Your task to perform on an android device: Go to calendar. Show me events next week Image 0: 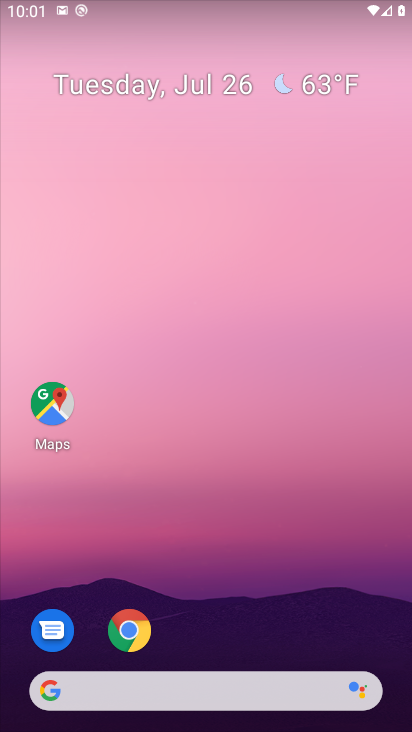
Step 0: drag from (205, 640) to (270, 15)
Your task to perform on an android device: Go to calendar. Show me events next week Image 1: 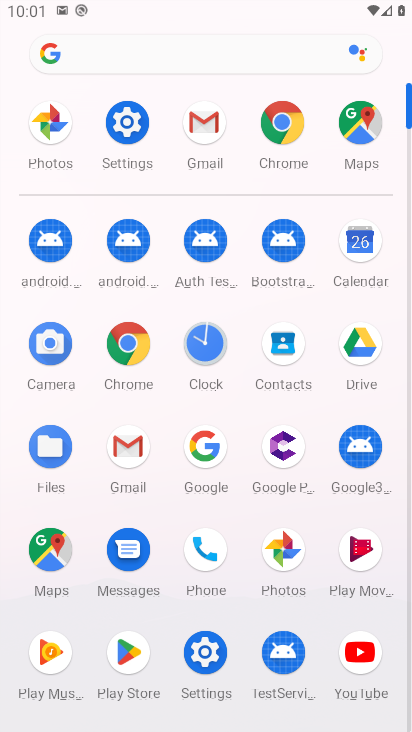
Step 1: click (351, 247)
Your task to perform on an android device: Go to calendar. Show me events next week Image 2: 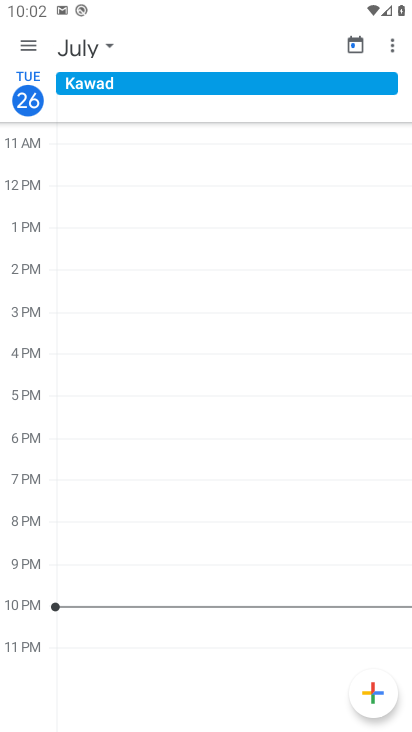
Step 2: click (28, 55)
Your task to perform on an android device: Go to calendar. Show me events next week Image 3: 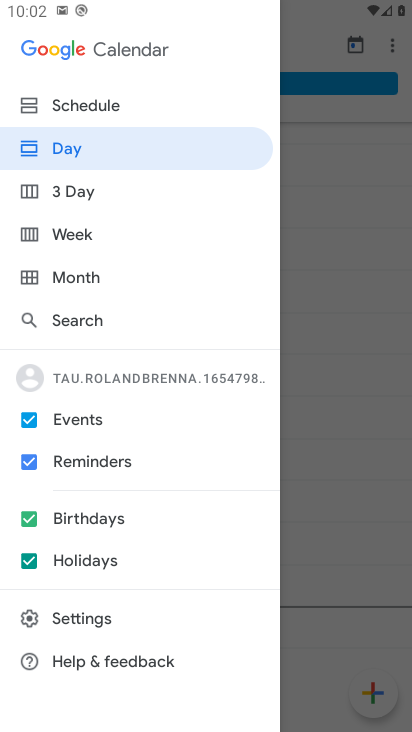
Step 3: click (32, 458)
Your task to perform on an android device: Go to calendar. Show me events next week Image 4: 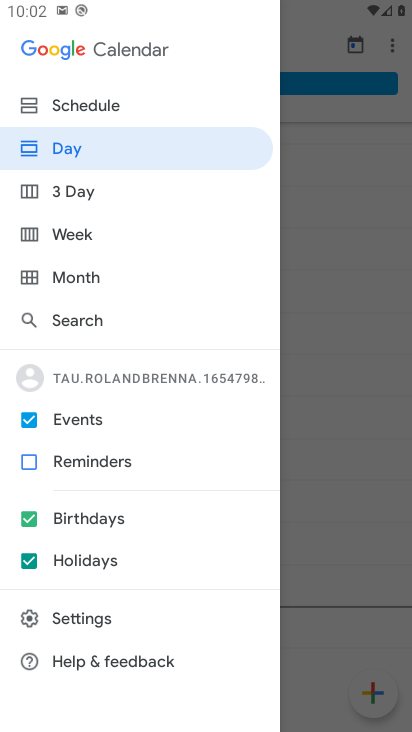
Step 4: click (26, 513)
Your task to perform on an android device: Go to calendar. Show me events next week Image 5: 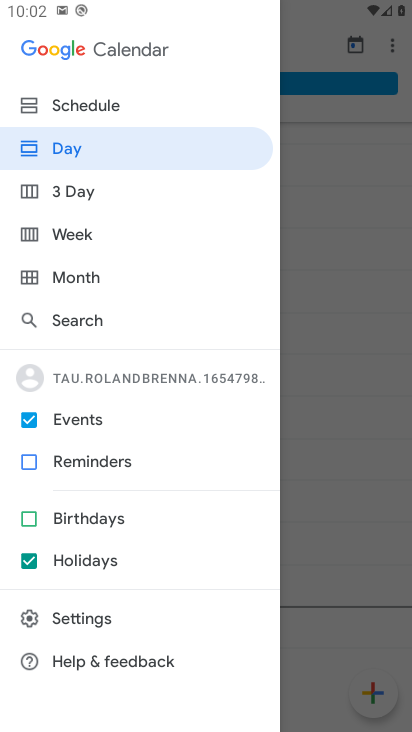
Step 5: click (33, 556)
Your task to perform on an android device: Go to calendar. Show me events next week Image 6: 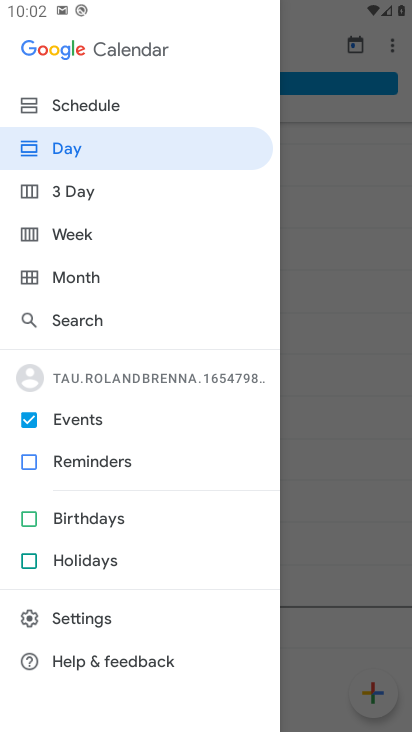
Step 6: click (35, 238)
Your task to perform on an android device: Go to calendar. Show me events next week Image 7: 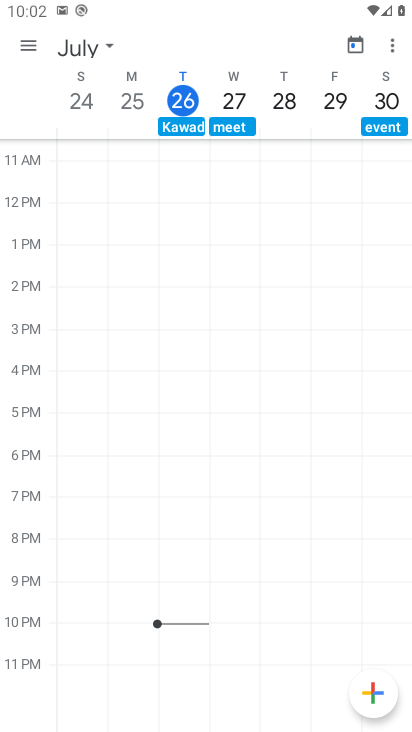
Step 7: task complete